Your task to perform on an android device: make emails show in primary in the gmail app Image 0: 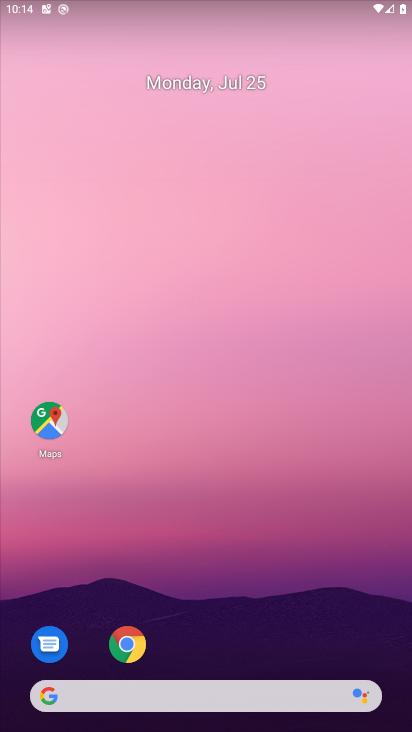
Step 0: drag from (266, 625) to (273, 80)
Your task to perform on an android device: make emails show in primary in the gmail app Image 1: 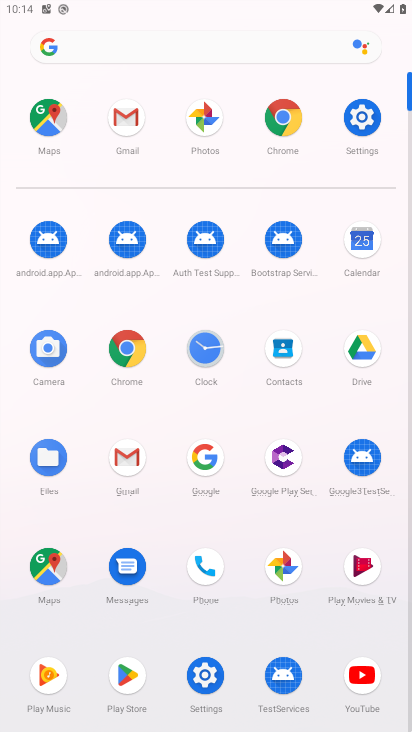
Step 1: click (123, 460)
Your task to perform on an android device: make emails show in primary in the gmail app Image 2: 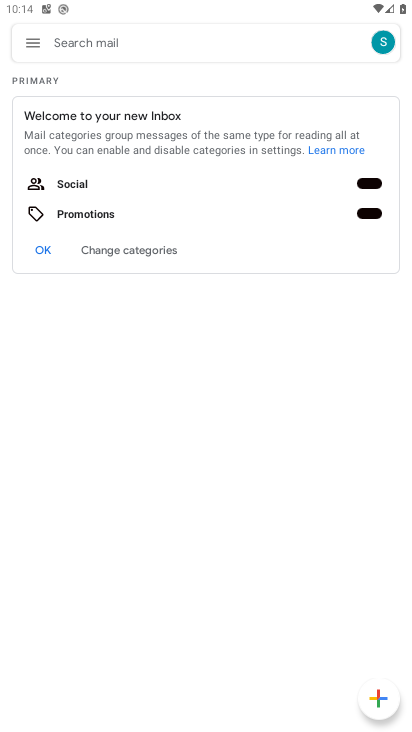
Step 2: click (30, 33)
Your task to perform on an android device: make emails show in primary in the gmail app Image 3: 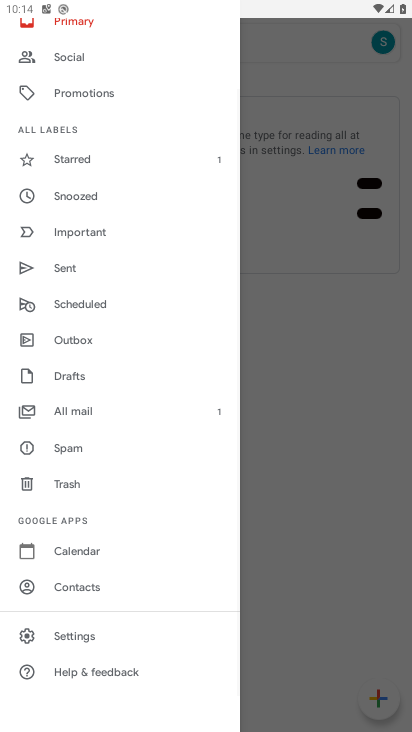
Step 3: drag from (106, 63) to (117, 425)
Your task to perform on an android device: make emails show in primary in the gmail app Image 4: 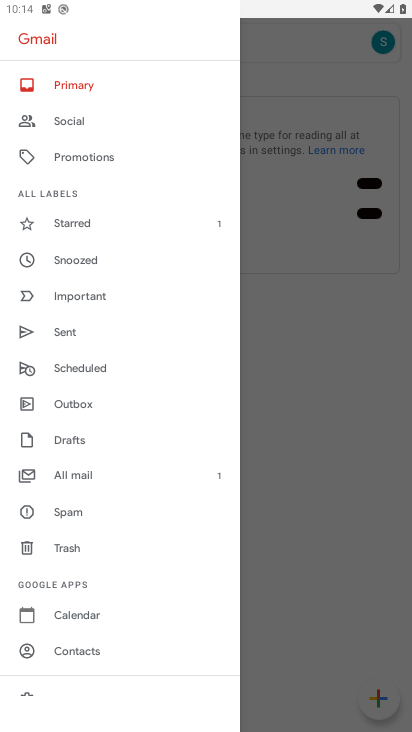
Step 4: click (61, 74)
Your task to perform on an android device: make emails show in primary in the gmail app Image 5: 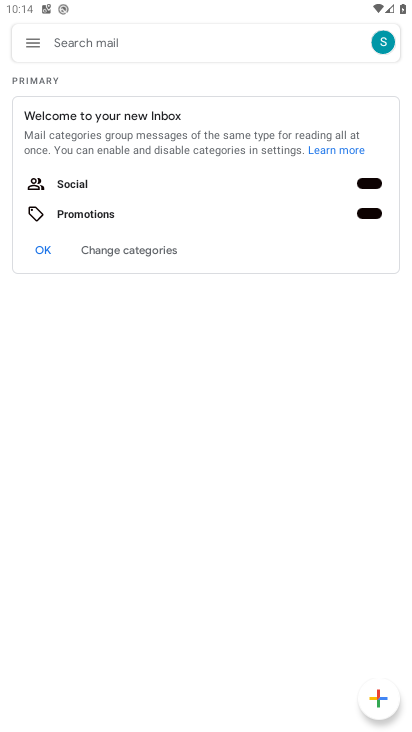
Step 5: task complete